Your task to perform on an android device: check out phone information Image 0: 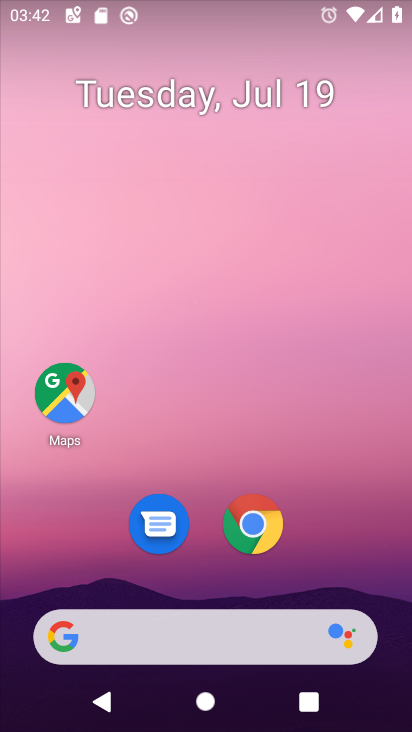
Step 0: drag from (338, 550) to (357, 81)
Your task to perform on an android device: check out phone information Image 1: 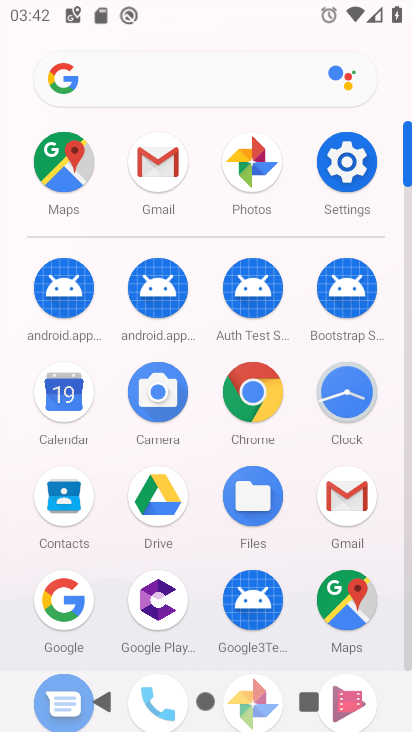
Step 1: drag from (190, 508) to (219, 202)
Your task to perform on an android device: check out phone information Image 2: 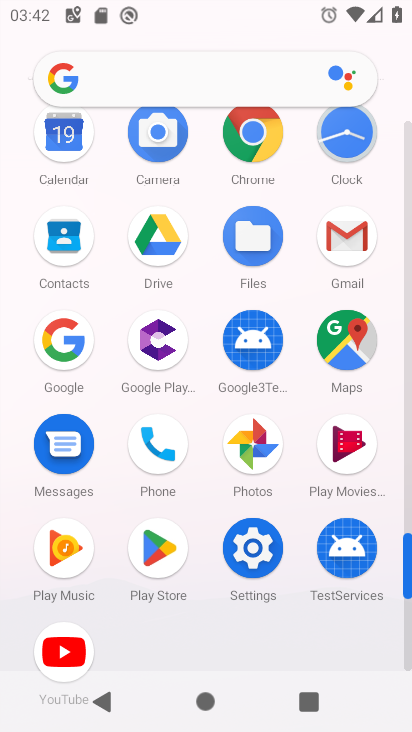
Step 2: click (173, 448)
Your task to perform on an android device: check out phone information Image 3: 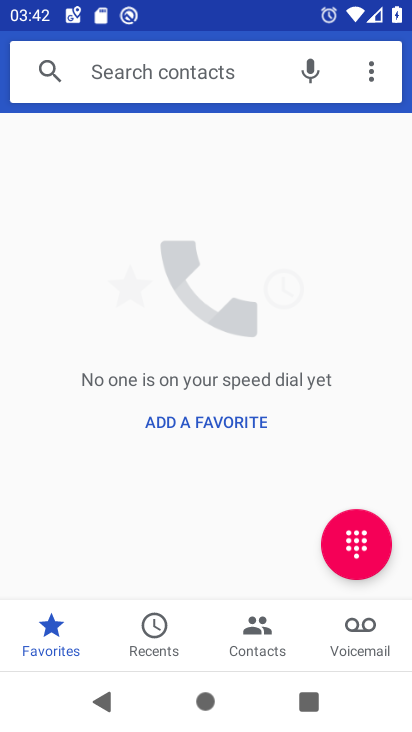
Step 3: click (369, 67)
Your task to perform on an android device: check out phone information Image 4: 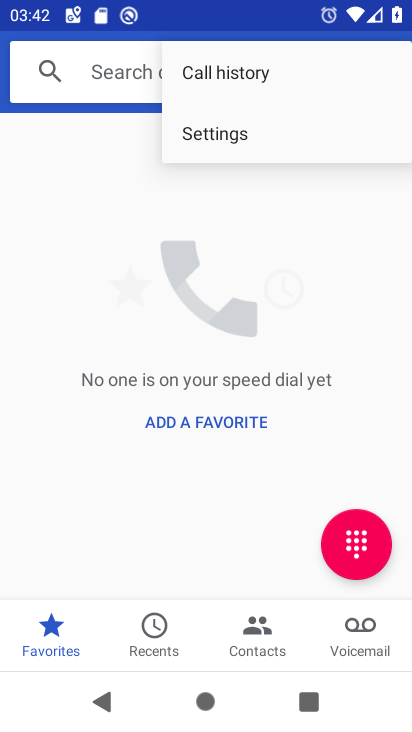
Step 4: click (268, 130)
Your task to perform on an android device: check out phone information Image 5: 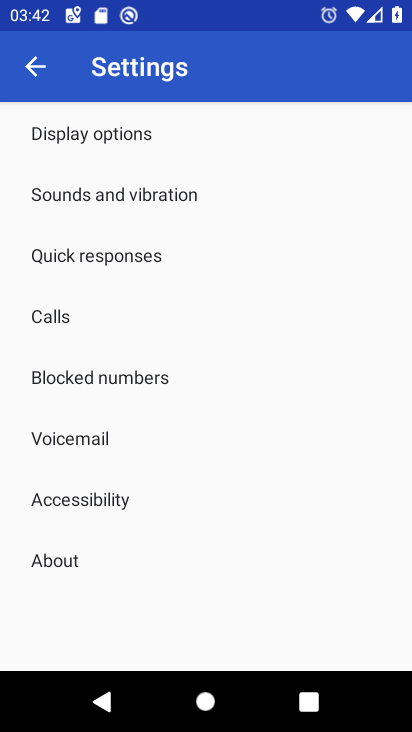
Step 5: click (60, 552)
Your task to perform on an android device: check out phone information Image 6: 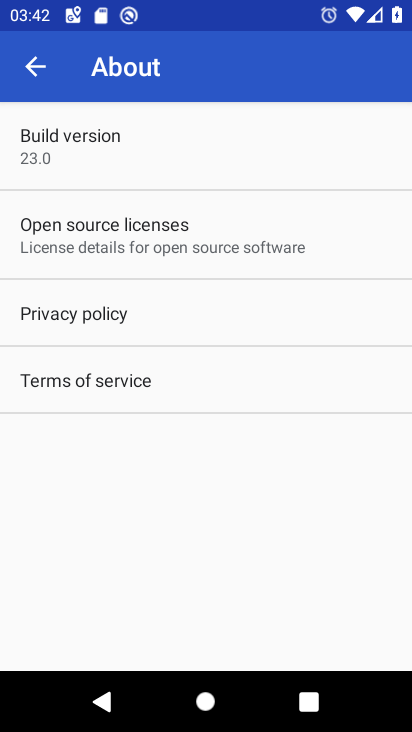
Step 6: task complete